Your task to perform on an android device: Is it going to rain this weekend? Image 0: 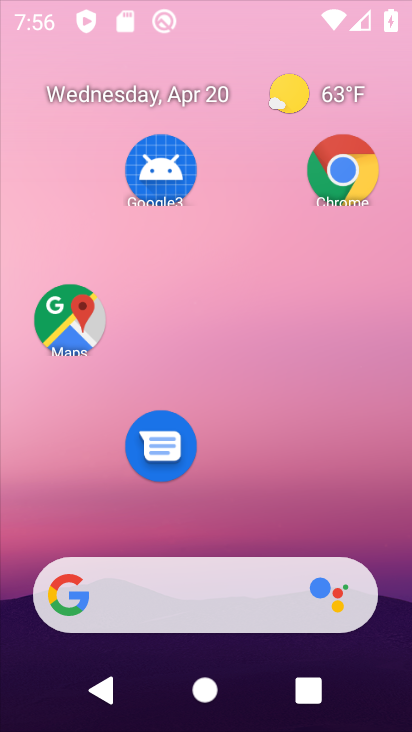
Step 0: click (342, 175)
Your task to perform on an android device: Is it going to rain this weekend? Image 1: 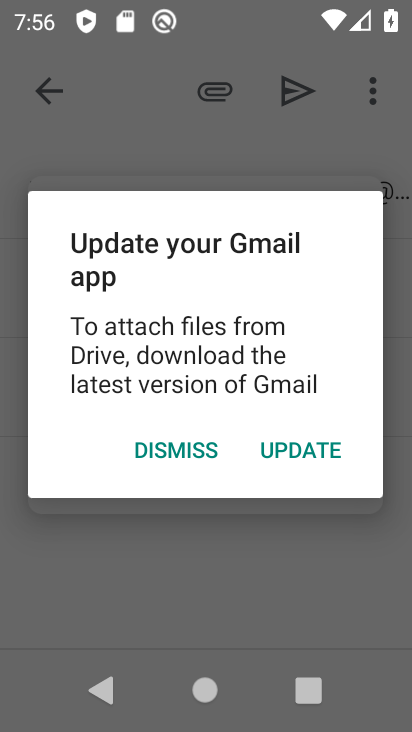
Step 1: press home button
Your task to perform on an android device: Is it going to rain this weekend? Image 2: 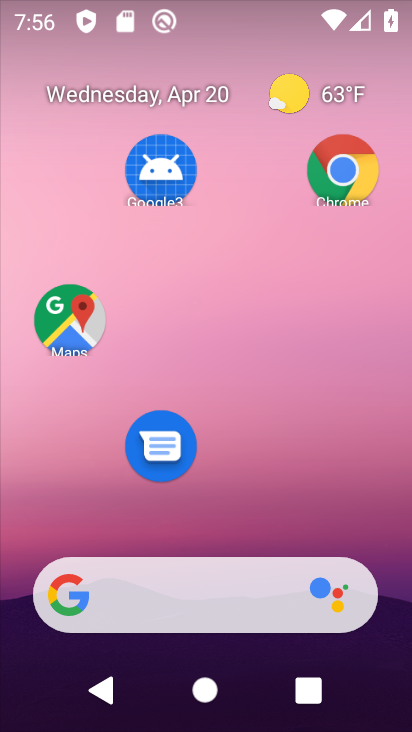
Step 2: click (298, 95)
Your task to perform on an android device: Is it going to rain this weekend? Image 3: 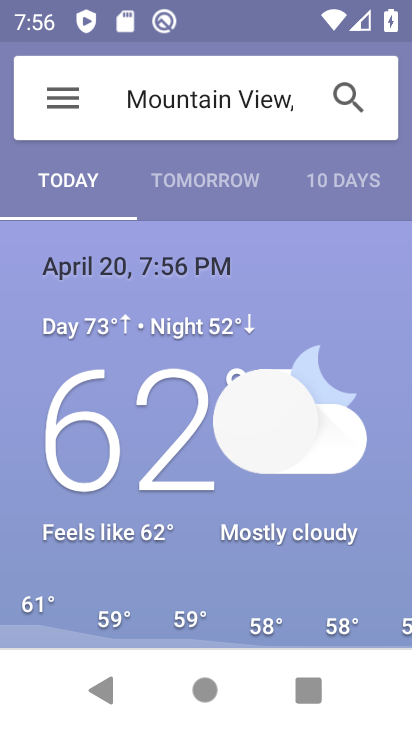
Step 3: click (216, 184)
Your task to perform on an android device: Is it going to rain this weekend? Image 4: 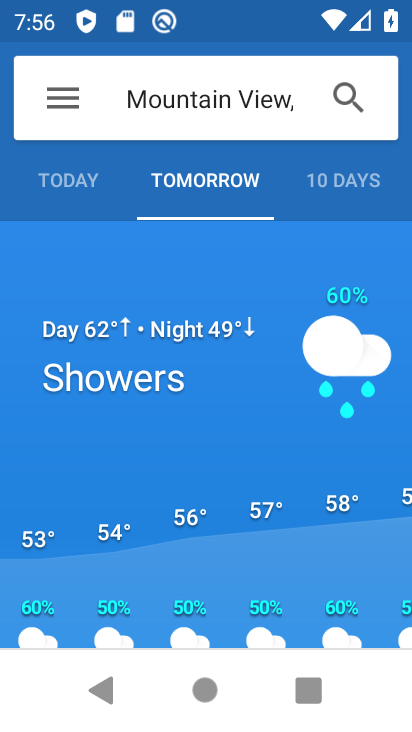
Step 4: click (347, 185)
Your task to perform on an android device: Is it going to rain this weekend? Image 5: 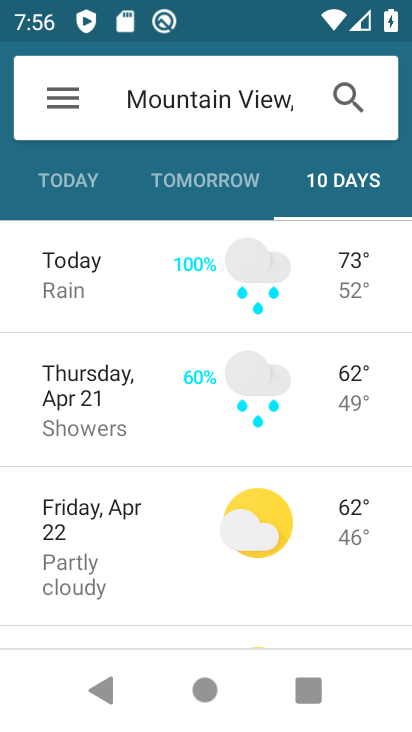
Step 5: task complete